Your task to perform on an android device: Search for the best rated electric lawnmower on Home Depot Image 0: 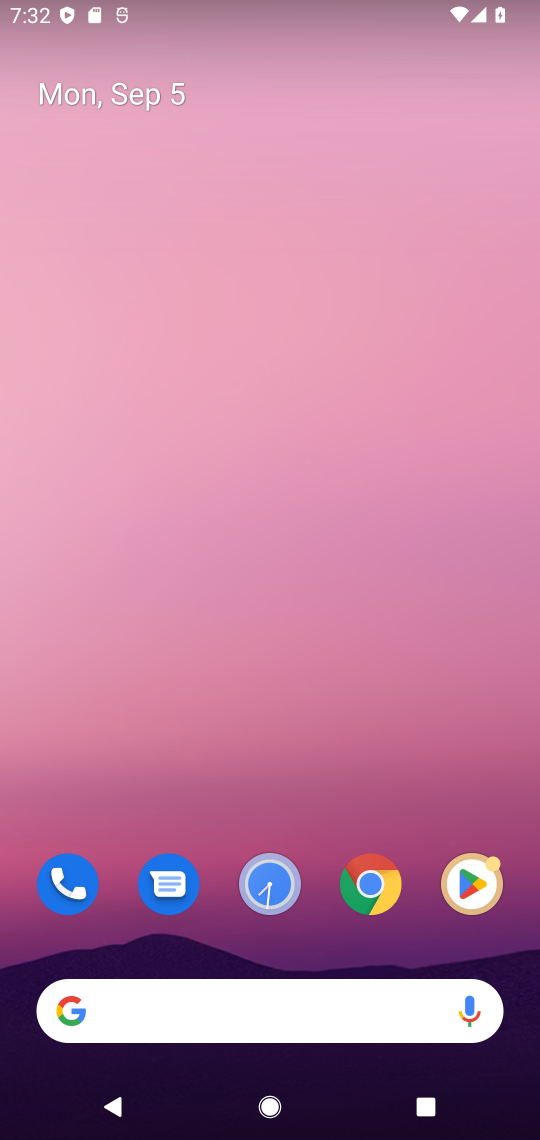
Step 0: click (382, 880)
Your task to perform on an android device: Search for the best rated electric lawnmower on Home Depot Image 1: 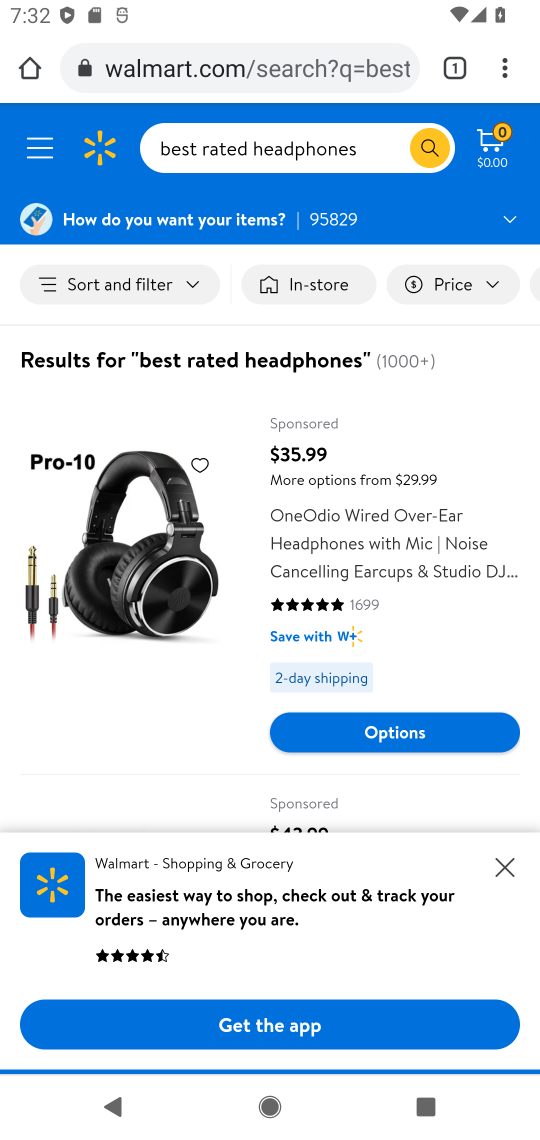
Step 1: click (254, 58)
Your task to perform on an android device: Search for the best rated electric lawnmower on Home Depot Image 2: 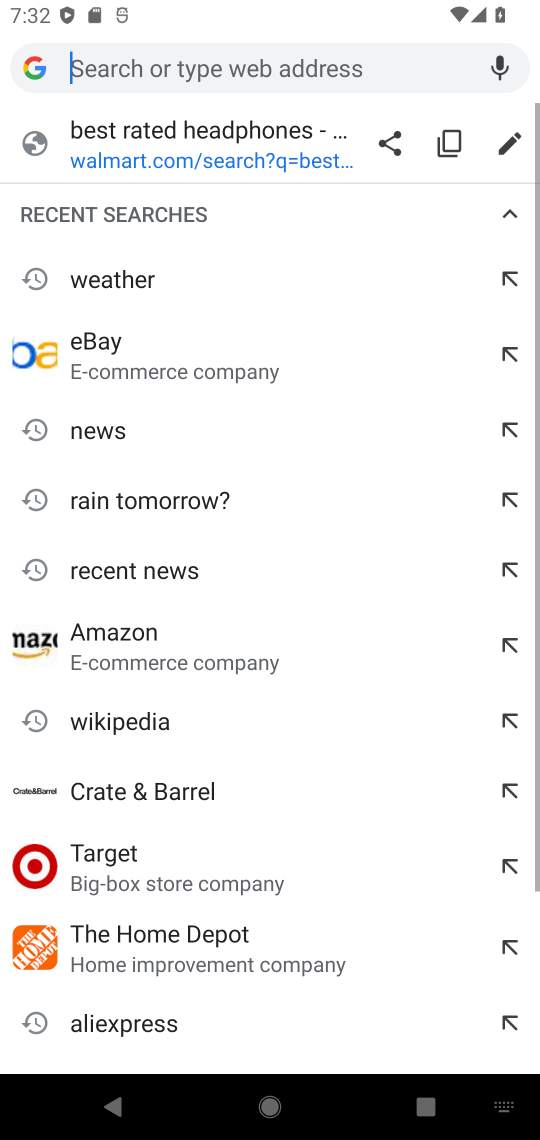
Step 2: click (310, 71)
Your task to perform on an android device: Search for the best rated electric lawnmower on Home Depot Image 3: 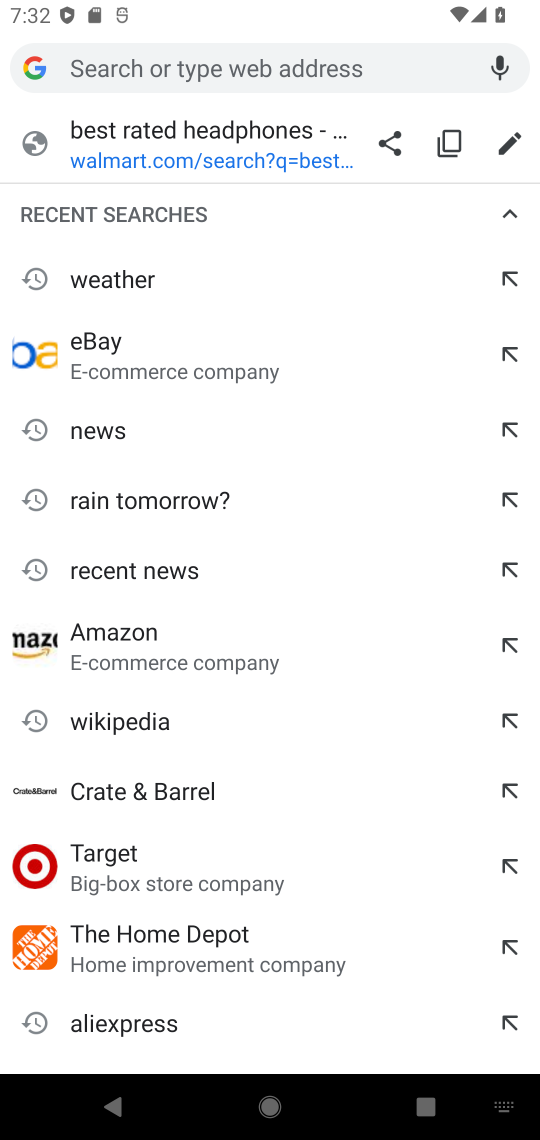
Step 3: type "home depot"
Your task to perform on an android device: Search for the best rated electric lawnmower on Home Depot Image 4: 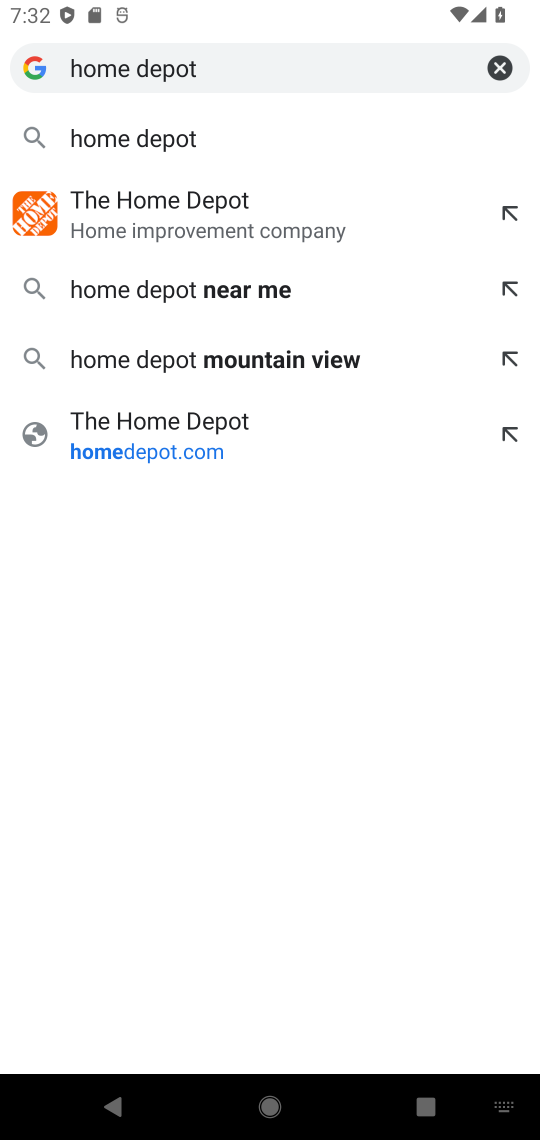
Step 4: click (282, 444)
Your task to perform on an android device: Search for the best rated electric lawnmower on Home Depot Image 5: 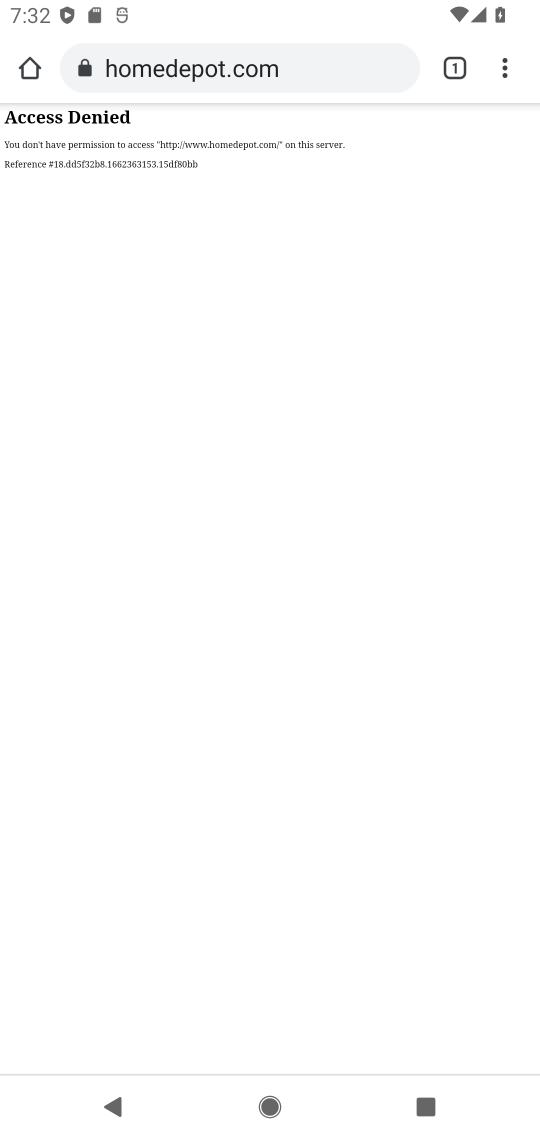
Step 5: task complete